Your task to perform on an android device: Show me popular games on the Play Store Image 0: 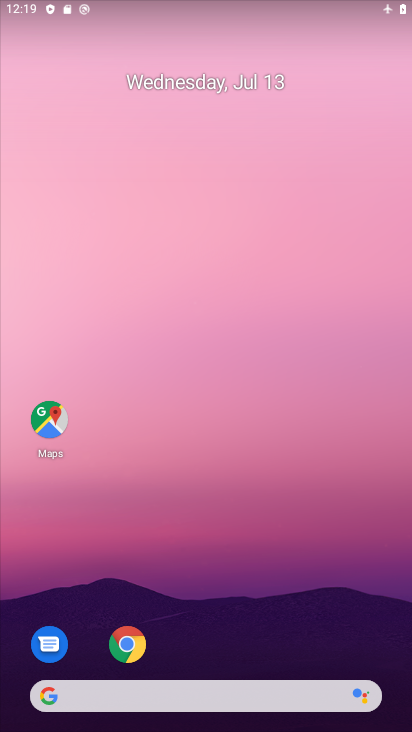
Step 0: drag from (271, 648) to (284, 30)
Your task to perform on an android device: Show me popular games on the Play Store Image 1: 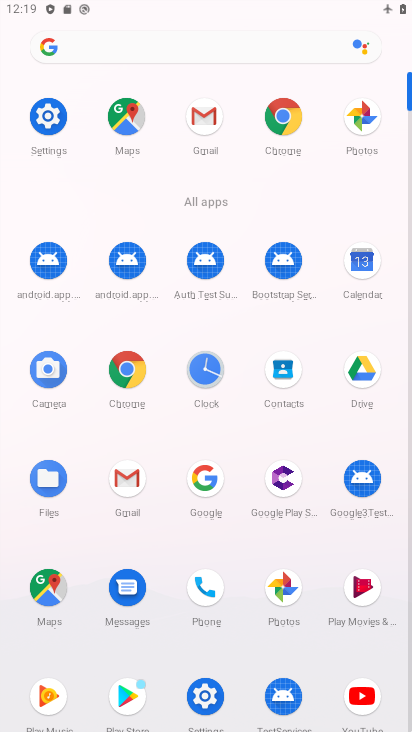
Step 1: click (130, 699)
Your task to perform on an android device: Show me popular games on the Play Store Image 2: 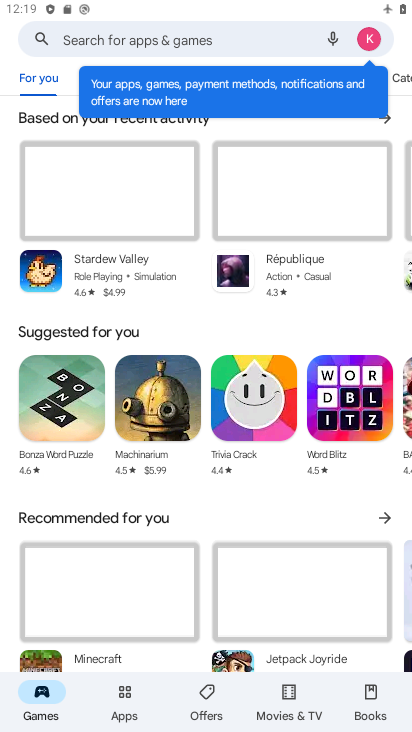
Step 2: task complete